Your task to perform on an android device: turn pop-ups on in chrome Image 0: 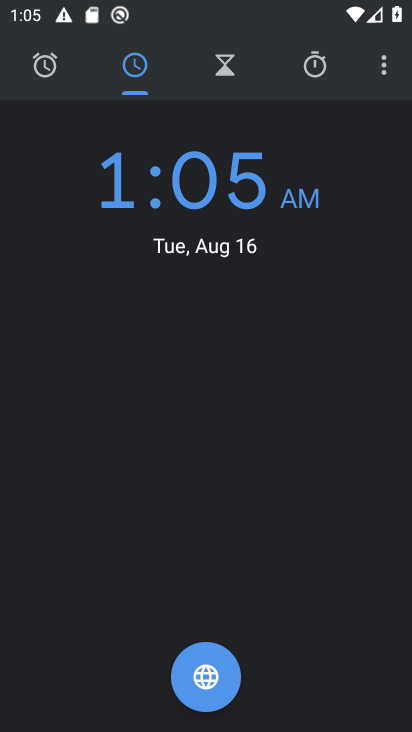
Step 0: press home button
Your task to perform on an android device: turn pop-ups on in chrome Image 1: 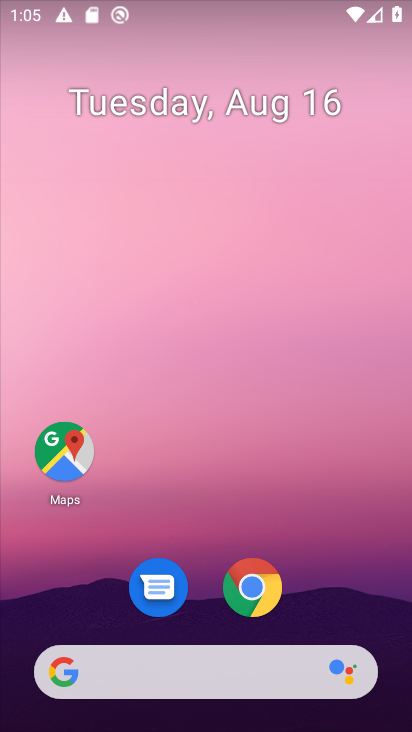
Step 1: click (253, 588)
Your task to perform on an android device: turn pop-ups on in chrome Image 2: 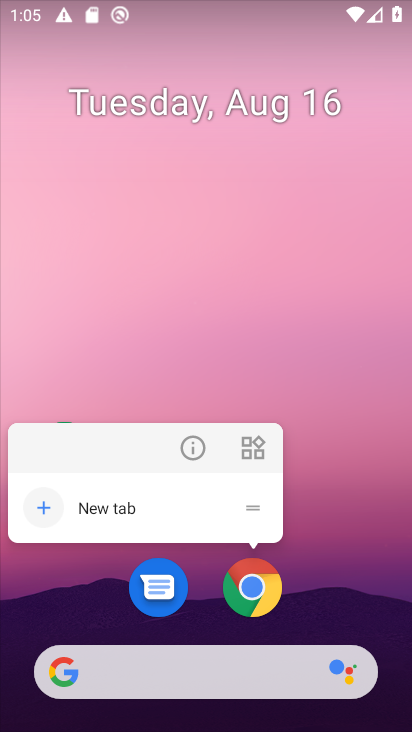
Step 2: click (253, 588)
Your task to perform on an android device: turn pop-ups on in chrome Image 3: 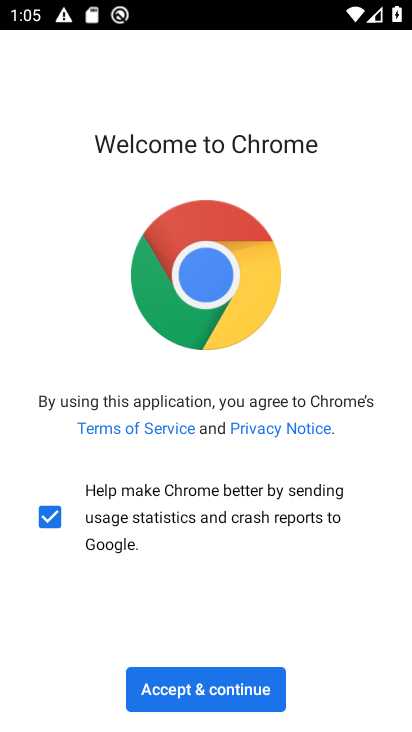
Step 3: click (260, 688)
Your task to perform on an android device: turn pop-ups on in chrome Image 4: 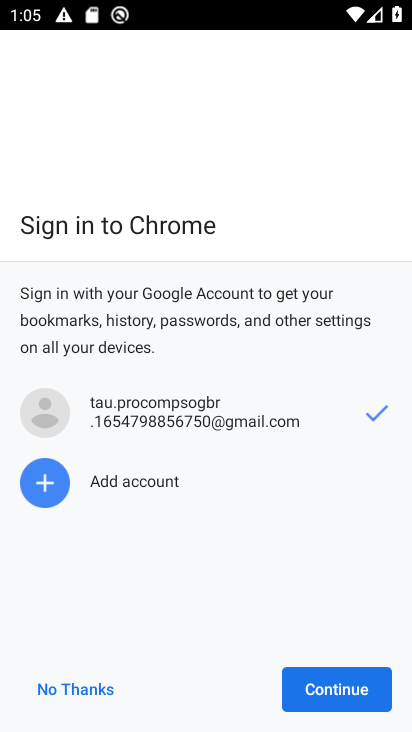
Step 4: click (333, 693)
Your task to perform on an android device: turn pop-ups on in chrome Image 5: 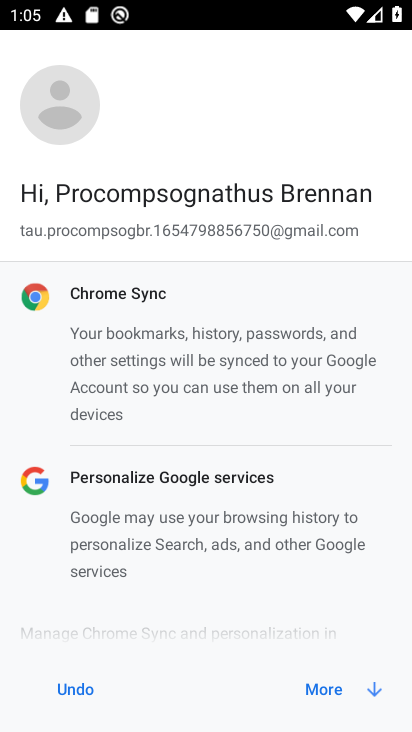
Step 5: click (332, 694)
Your task to perform on an android device: turn pop-ups on in chrome Image 6: 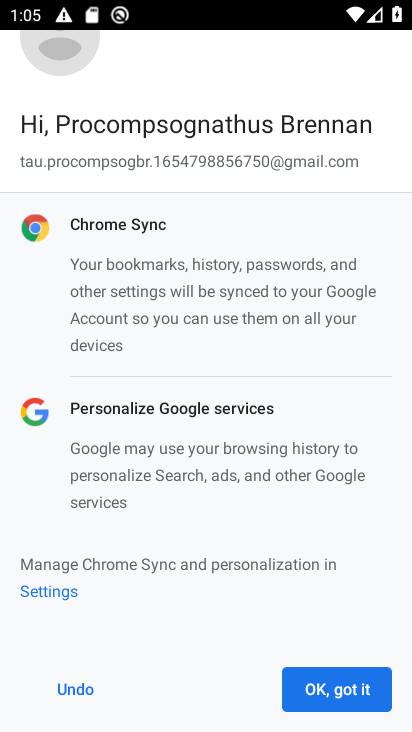
Step 6: click (330, 698)
Your task to perform on an android device: turn pop-ups on in chrome Image 7: 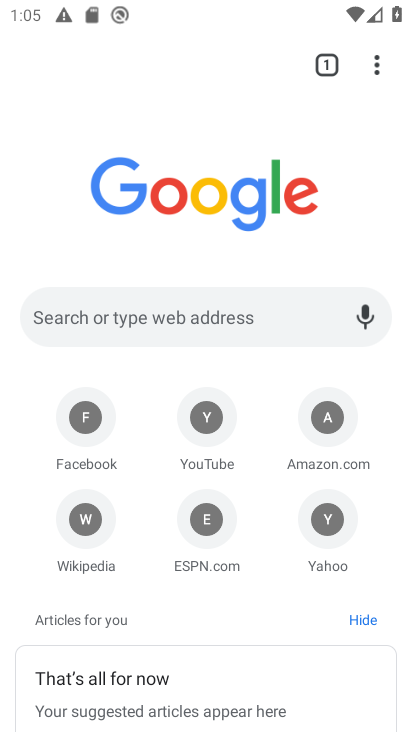
Step 7: click (372, 69)
Your task to perform on an android device: turn pop-ups on in chrome Image 8: 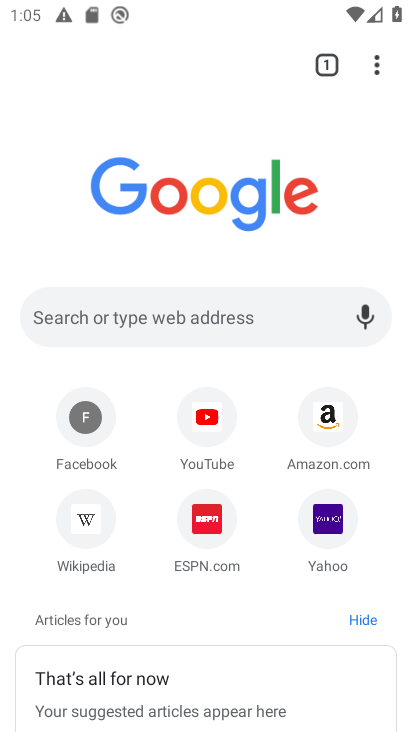
Step 8: click (374, 69)
Your task to perform on an android device: turn pop-ups on in chrome Image 9: 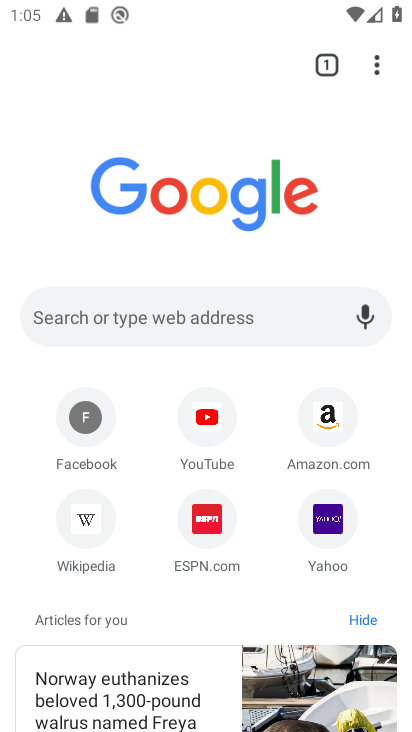
Step 9: click (375, 63)
Your task to perform on an android device: turn pop-ups on in chrome Image 10: 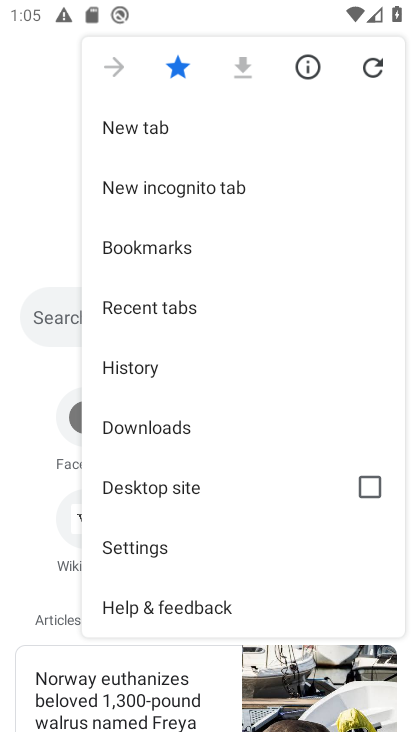
Step 10: click (165, 550)
Your task to perform on an android device: turn pop-ups on in chrome Image 11: 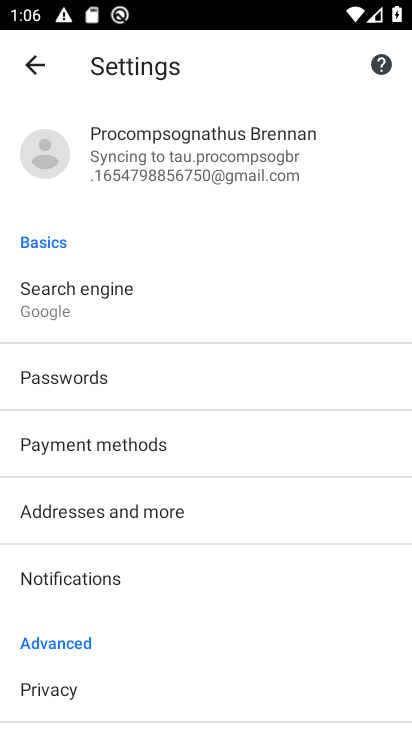
Step 11: drag from (71, 667) to (46, 105)
Your task to perform on an android device: turn pop-ups on in chrome Image 12: 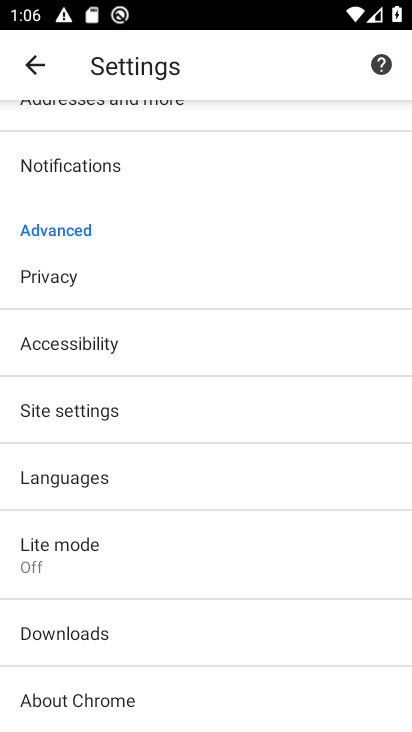
Step 12: click (53, 410)
Your task to perform on an android device: turn pop-ups on in chrome Image 13: 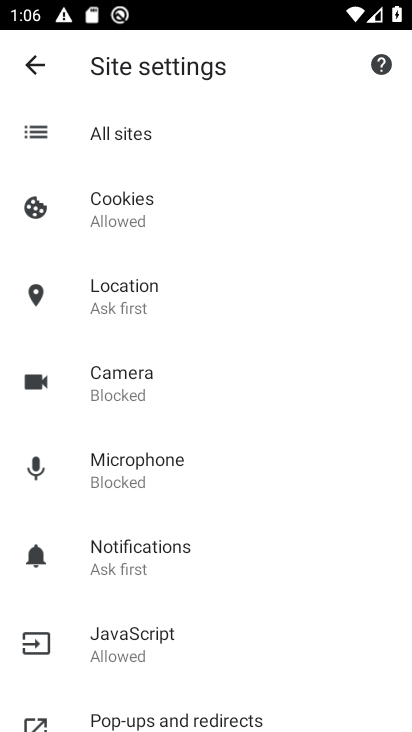
Step 13: click (109, 565)
Your task to perform on an android device: turn pop-ups on in chrome Image 14: 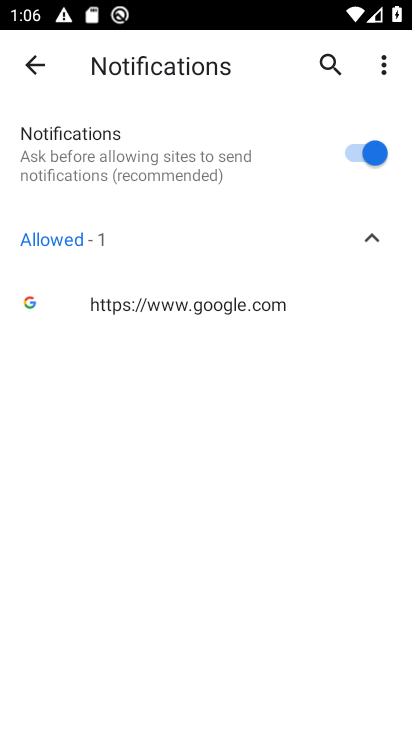
Step 14: click (24, 63)
Your task to perform on an android device: turn pop-ups on in chrome Image 15: 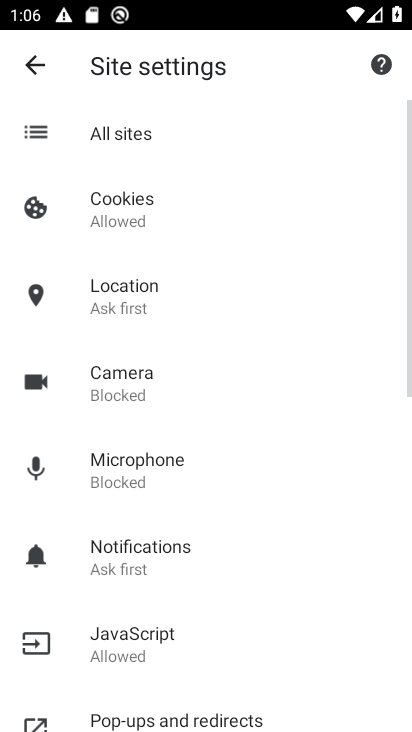
Step 15: drag from (125, 671) to (124, 321)
Your task to perform on an android device: turn pop-ups on in chrome Image 16: 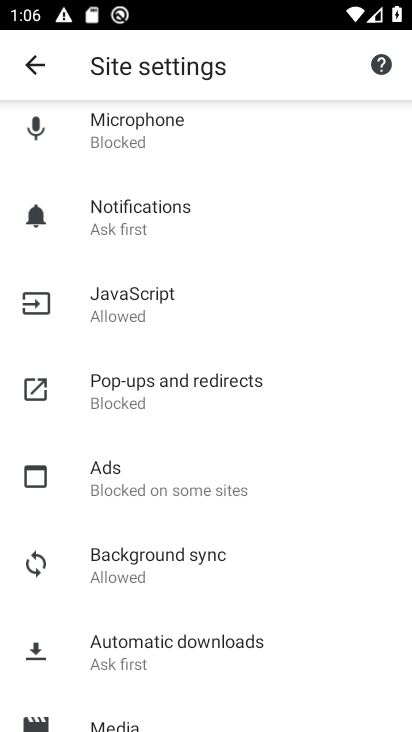
Step 16: click (156, 414)
Your task to perform on an android device: turn pop-ups on in chrome Image 17: 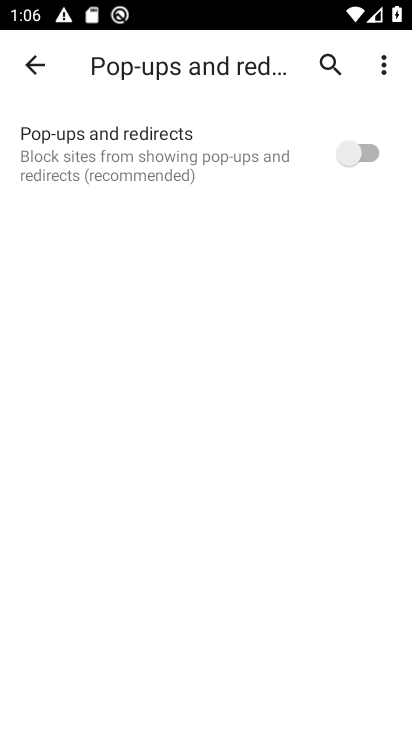
Step 17: click (362, 149)
Your task to perform on an android device: turn pop-ups on in chrome Image 18: 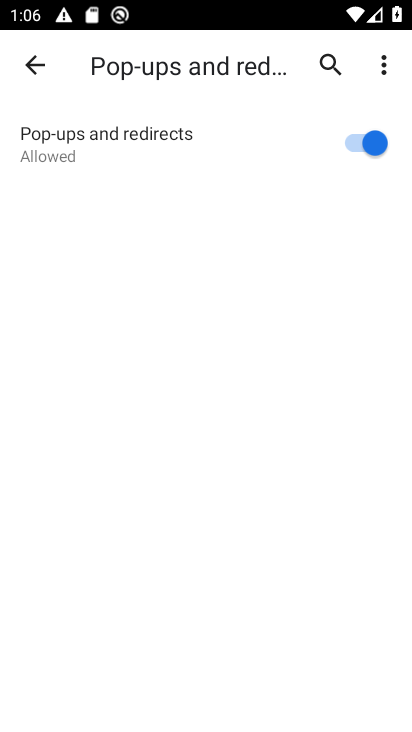
Step 18: task complete